Your task to perform on an android device: Show the shopping cart on target. Add lenovo thinkpad to the cart on target, then select checkout. Image 0: 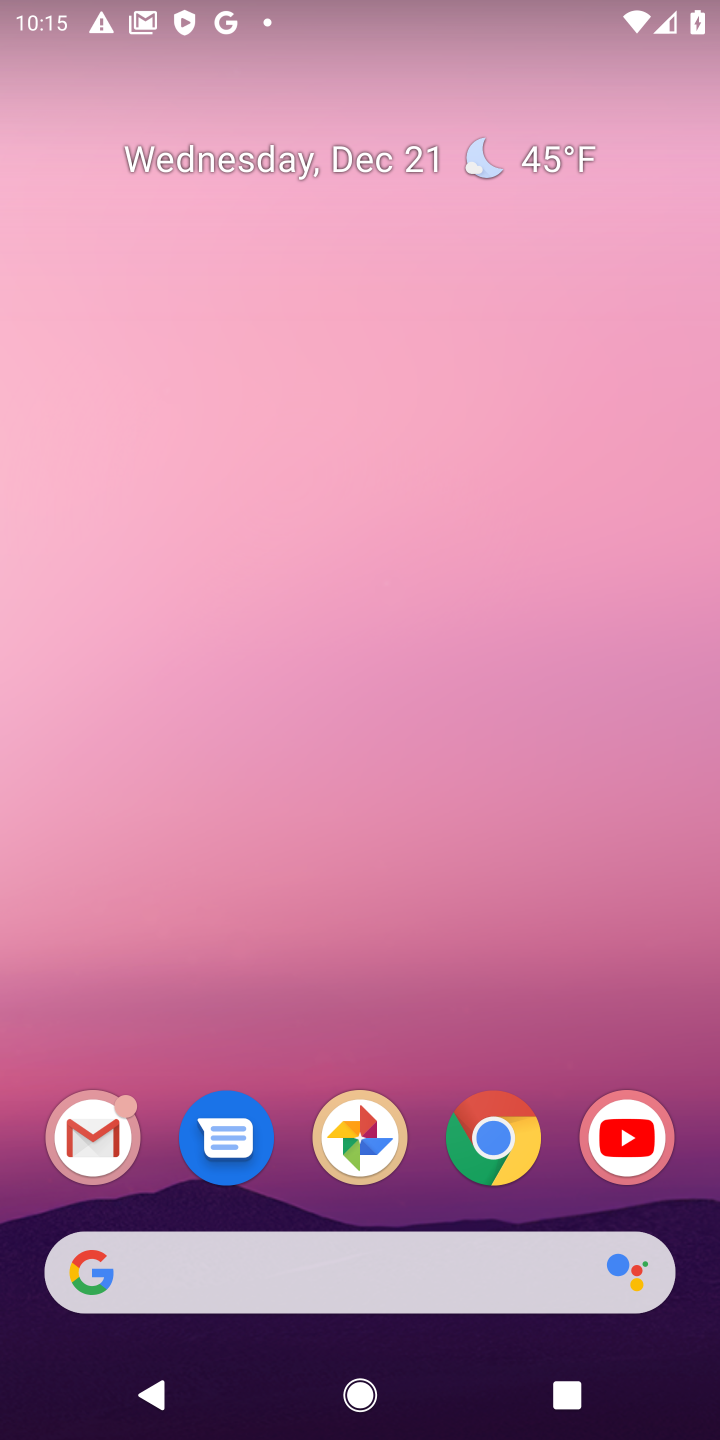
Step 0: click (500, 1139)
Your task to perform on an android device: Show the shopping cart on target. Add lenovo thinkpad to the cart on target, then select checkout. Image 1: 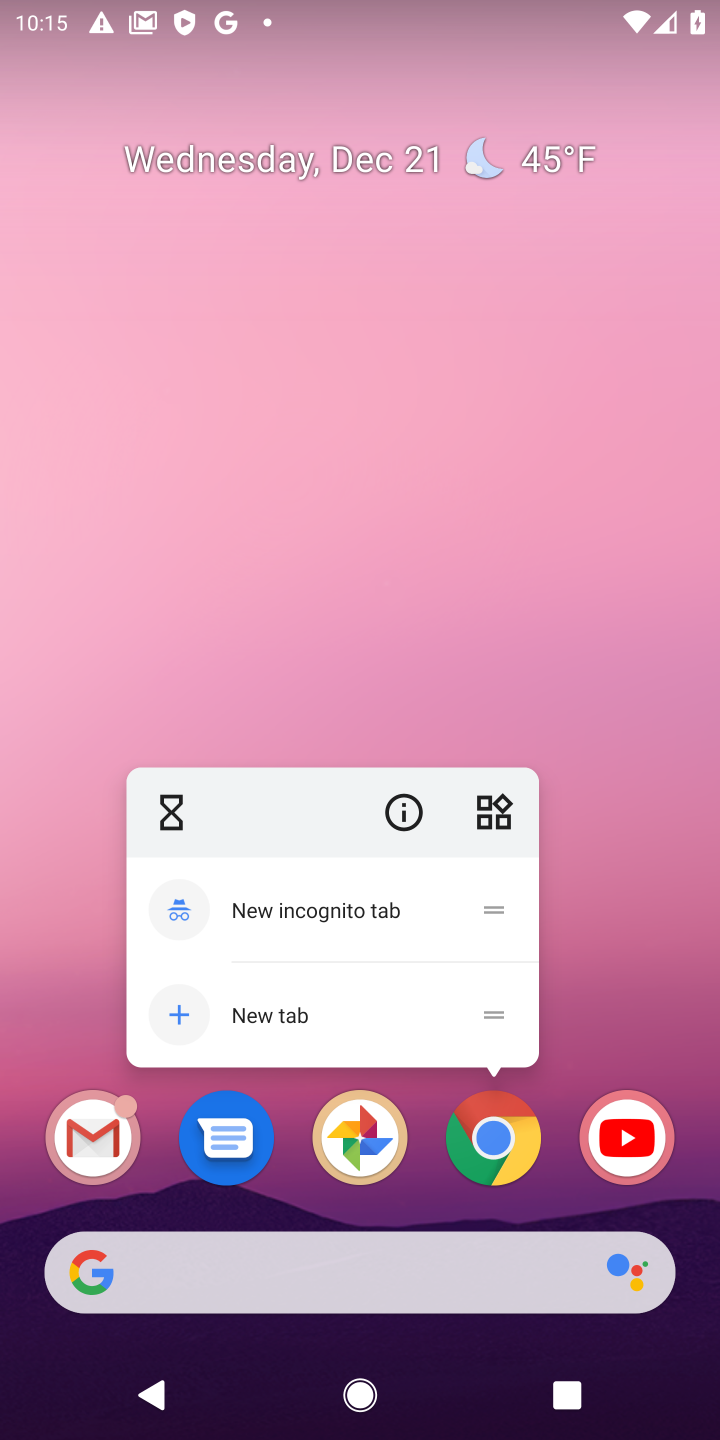
Step 1: click (500, 1141)
Your task to perform on an android device: Show the shopping cart on target. Add lenovo thinkpad to the cart on target, then select checkout. Image 2: 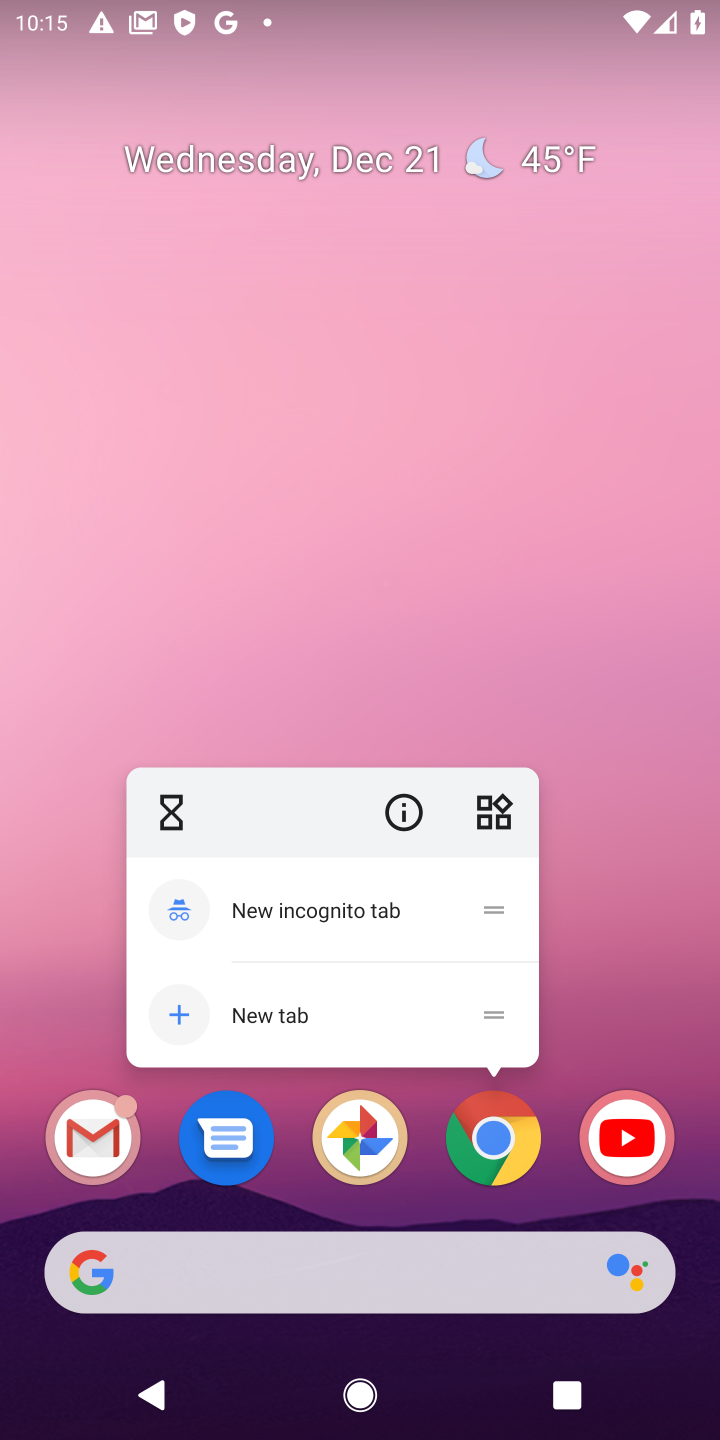
Step 2: click (490, 1143)
Your task to perform on an android device: Show the shopping cart on target. Add lenovo thinkpad to the cart on target, then select checkout. Image 3: 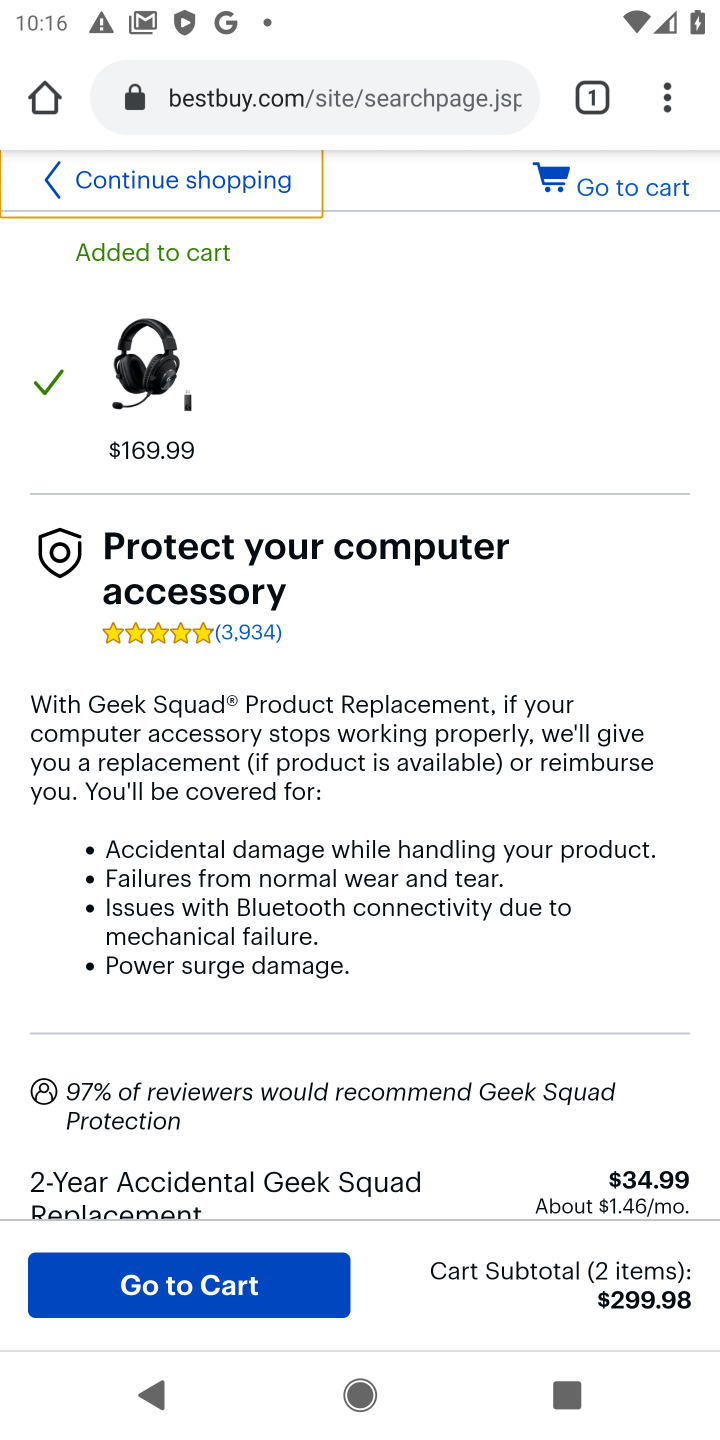
Step 3: click (228, 104)
Your task to perform on an android device: Show the shopping cart on target. Add lenovo thinkpad to the cart on target, then select checkout. Image 4: 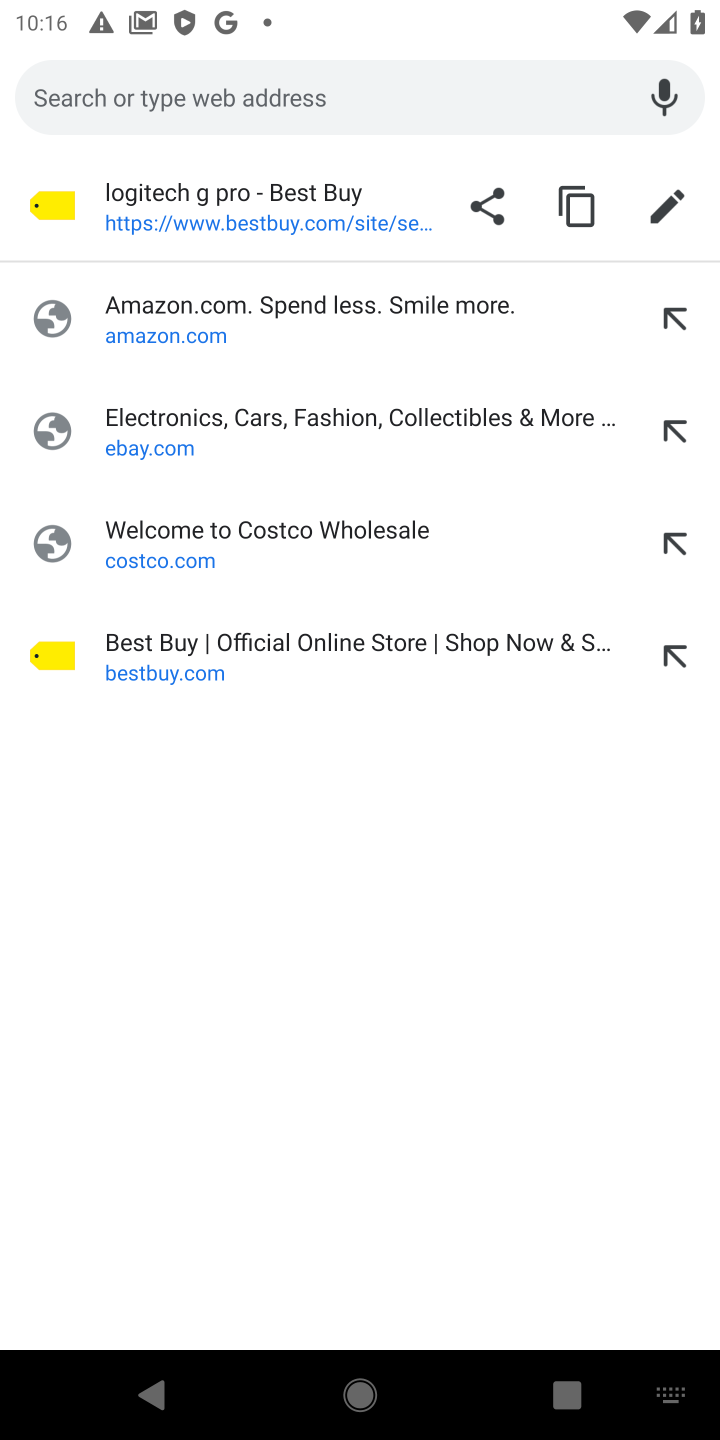
Step 4: type "target.com"
Your task to perform on an android device: Show the shopping cart on target. Add lenovo thinkpad to the cart on target, then select checkout. Image 5: 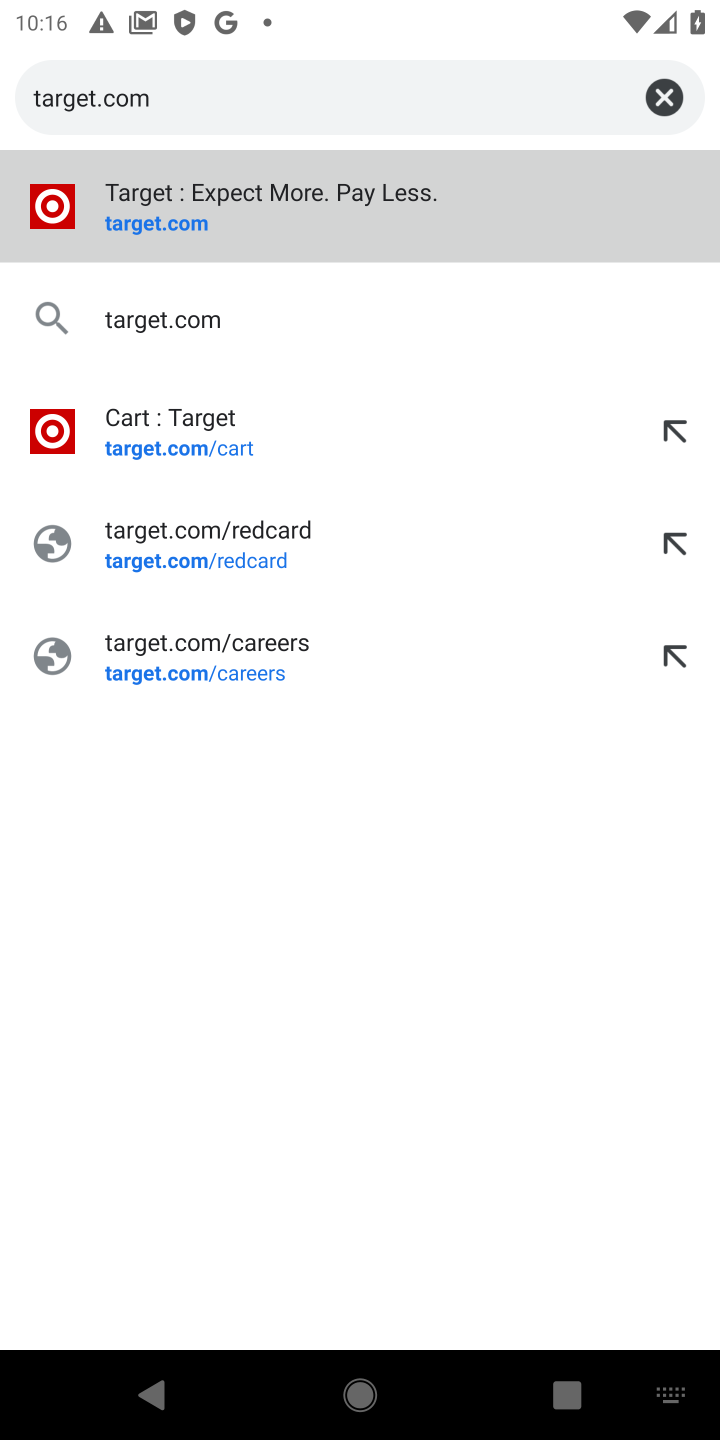
Step 5: click (149, 213)
Your task to perform on an android device: Show the shopping cart on target. Add lenovo thinkpad to the cart on target, then select checkout. Image 6: 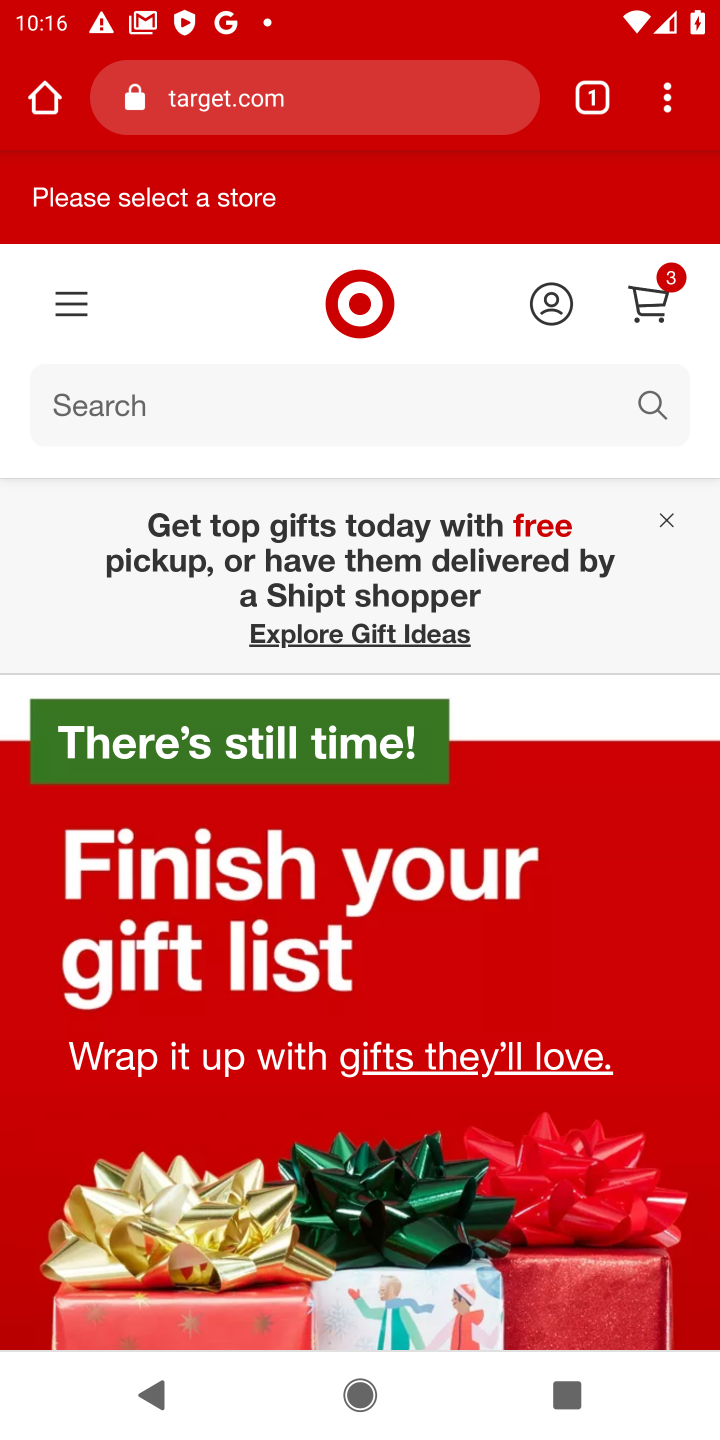
Step 6: click (648, 307)
Your task to perform on an android device: Show the shopping cart on target. Add lenovo thinkpad to the cart on target, then select checkout. Image 7: 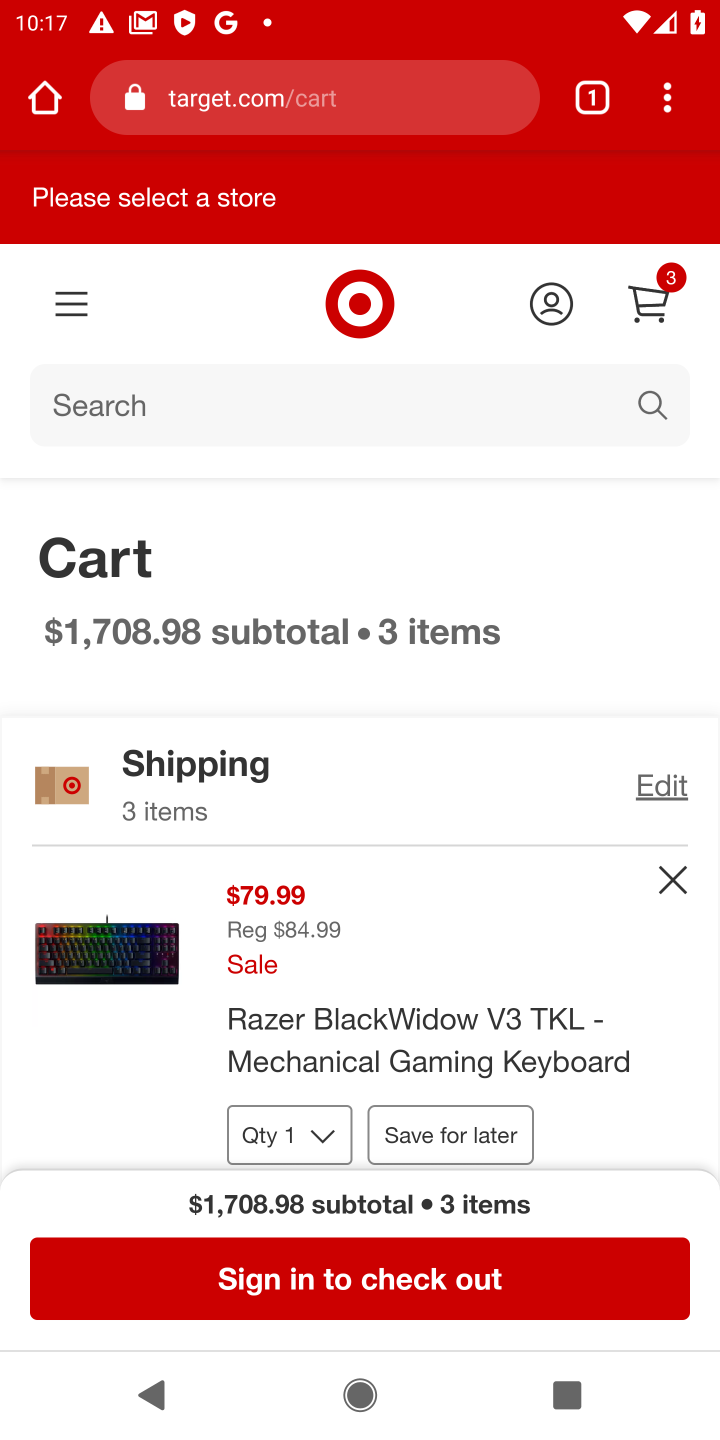
Step 7: click (88, 407)
Your task to perform on an android device: Show the shopping cart on target. Add lenovo thinkpad to the cart on target, then select checkout. Image 8: 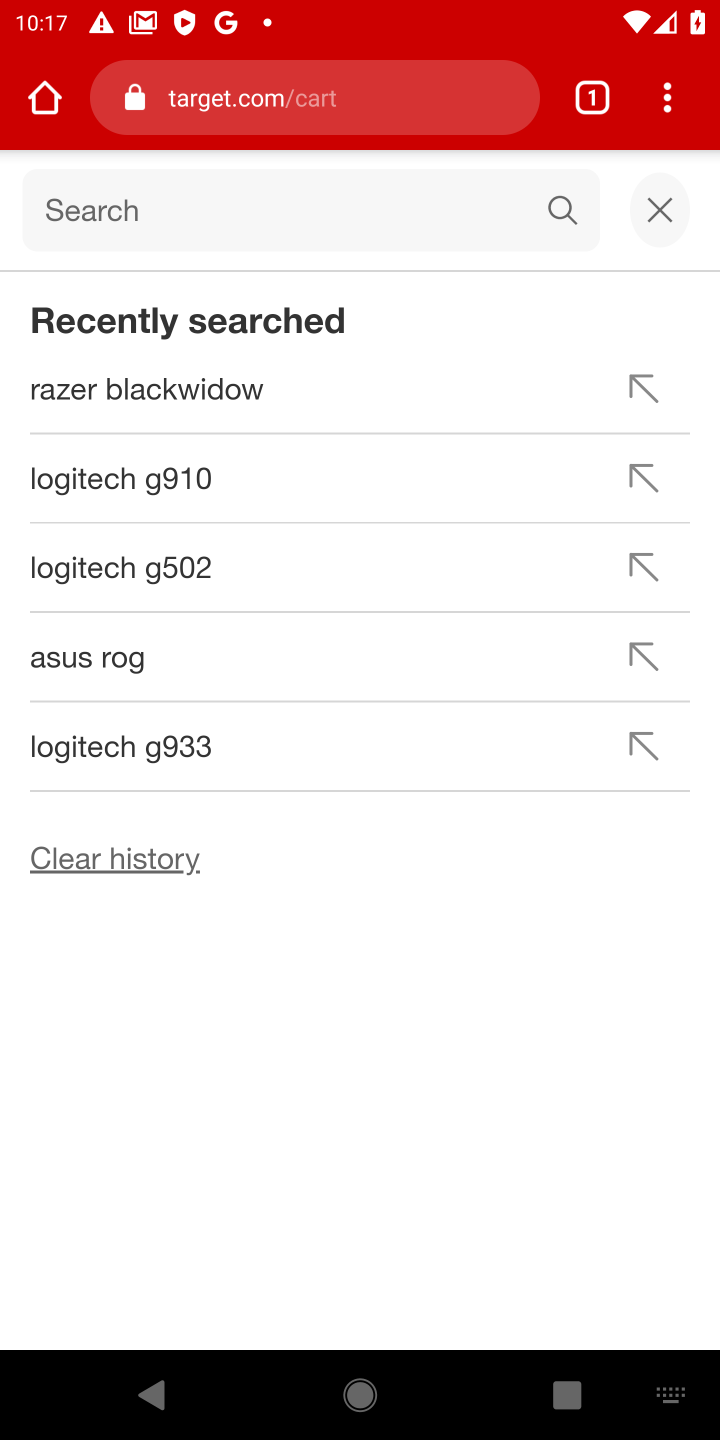
Step 8: type "lenovo thinkpad"
Your task to perform on an android device: Show the shopping cart on target. Add lenovo thinkpad to the cart on target, then select checkout. Image 9: 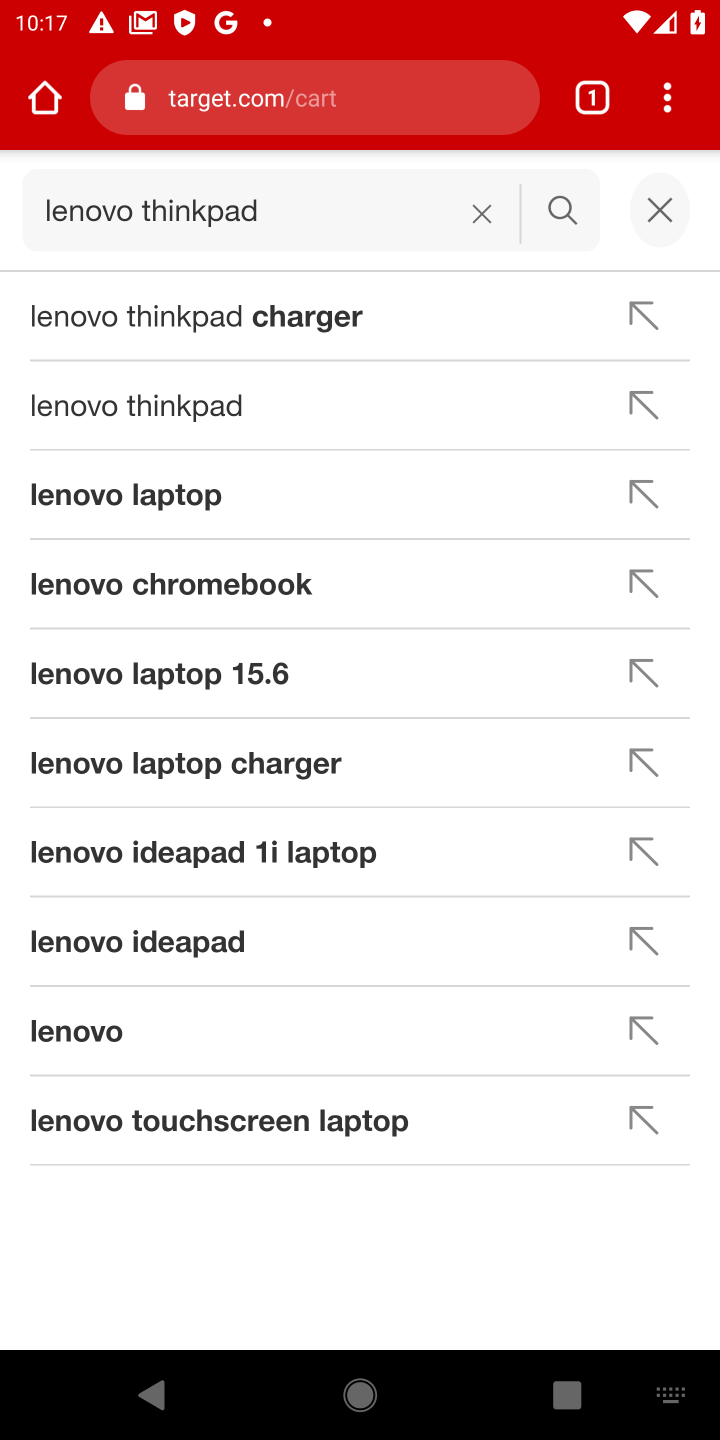
Step 9: click (97, 413)
Your task to perform on an android device: Show the shopping cart on target. Add lenovo thinkpad to the cart on target, then select checkout. Image 10: 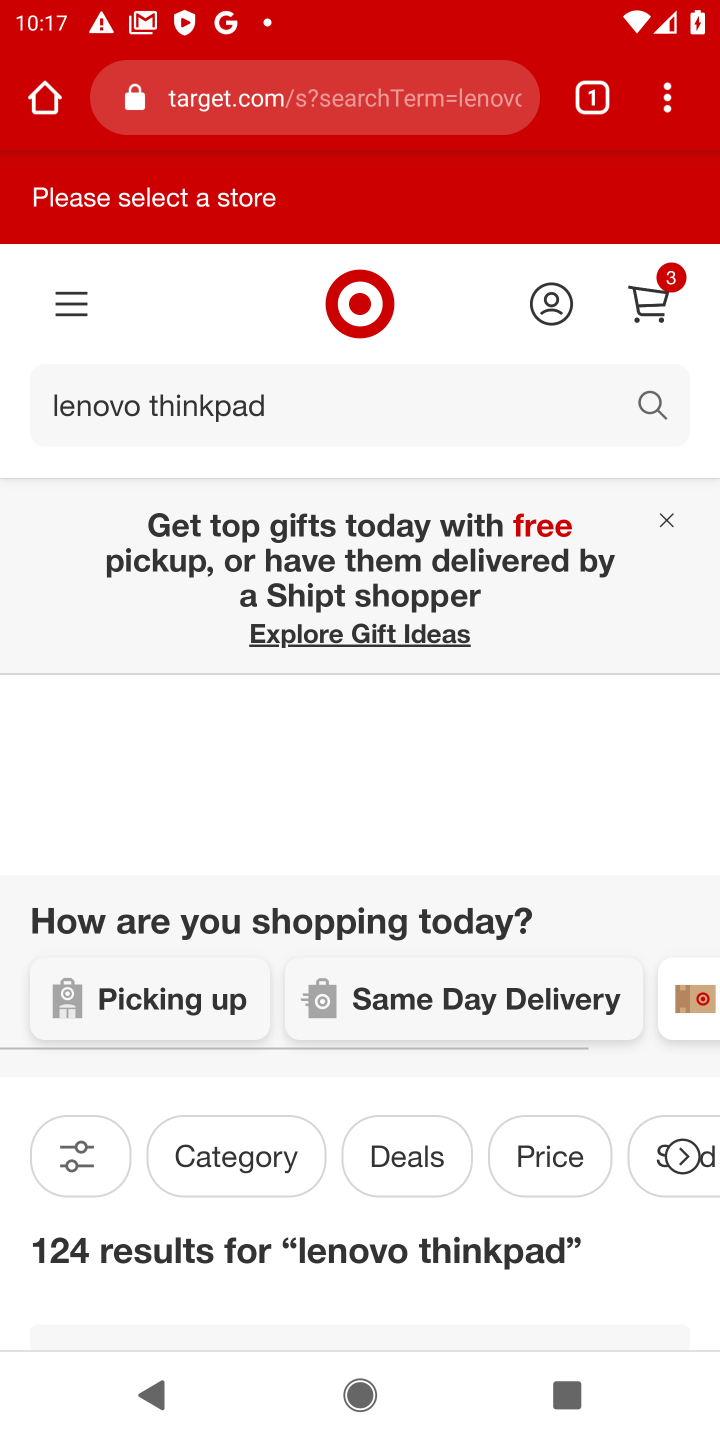
Step 10: drag from (287, 999) to (288, 426)
Your task to perform on an android device: Show the shopping cart on target. Add lenovo thinkpad to the cart on target, then select checkout. Image 11: 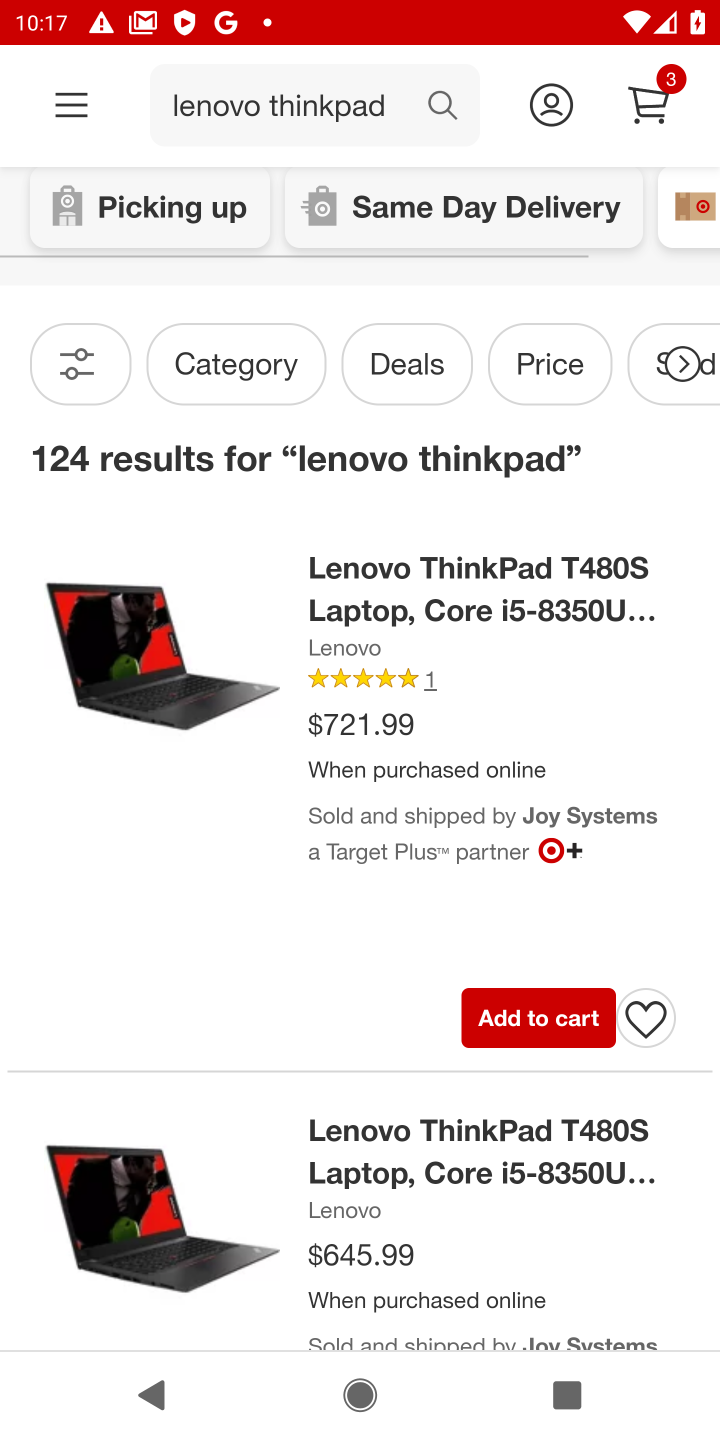
Step 11: click (540, 1029)
Your task to perform on an android device: Show the shopping cart on target. Add lenovo thinkpad to the cart on target, then select checkout. Image 12: 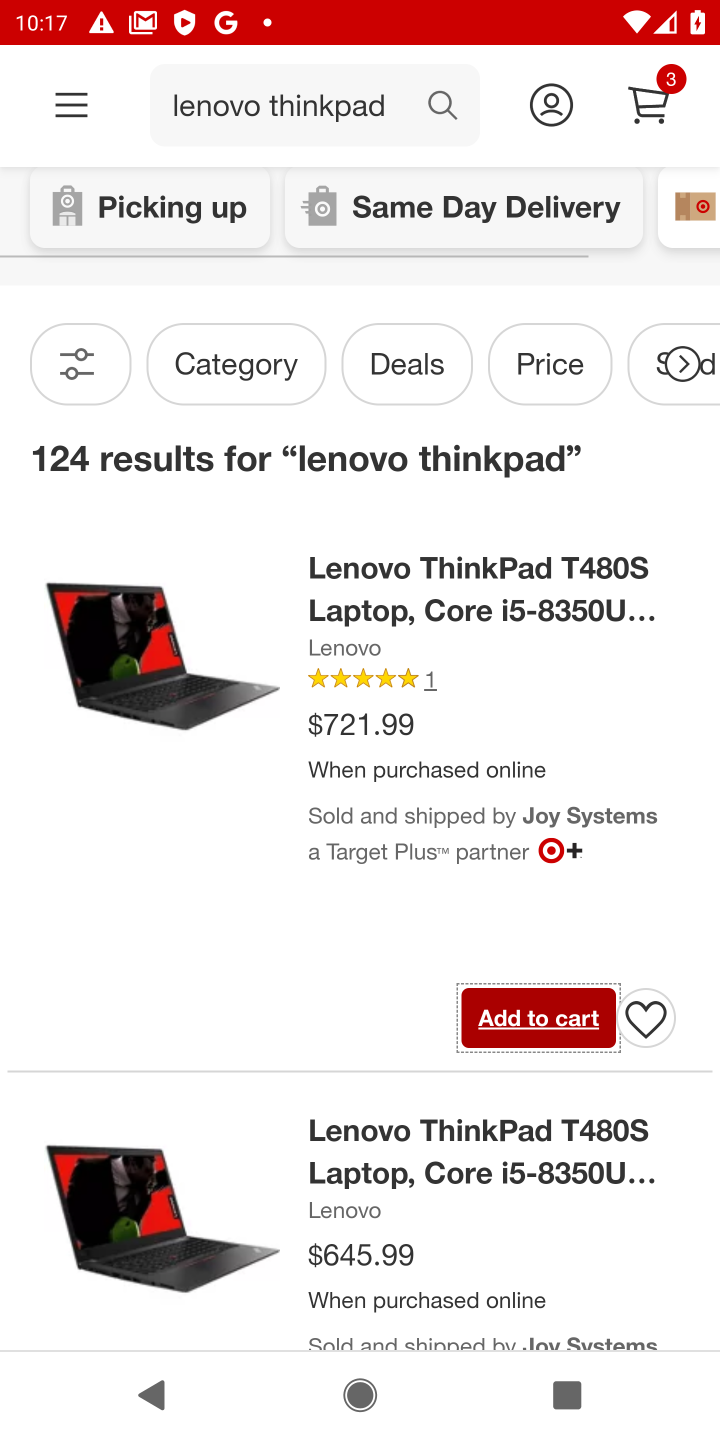
Step 12: click (651, 109)
Your task to perform on an android device: Show the shopping cart on target. Add lenovo thinkpad to the cart on target, then select checkout. Image 13: 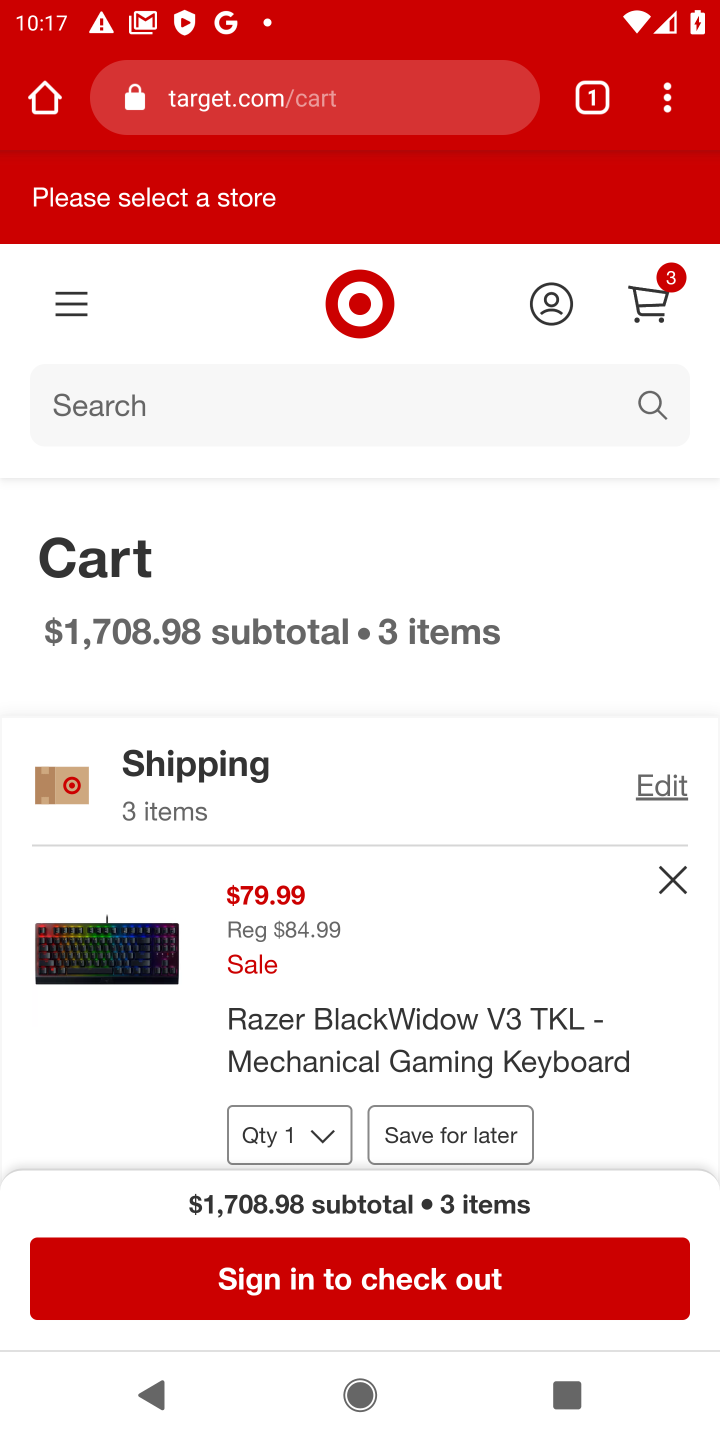
Step 13: click (350, 1282)
Your task to perform on an android device: Show the shopping cart on target. Add lenovo thinkpad to the cart on target, then select checkout. Image 14: 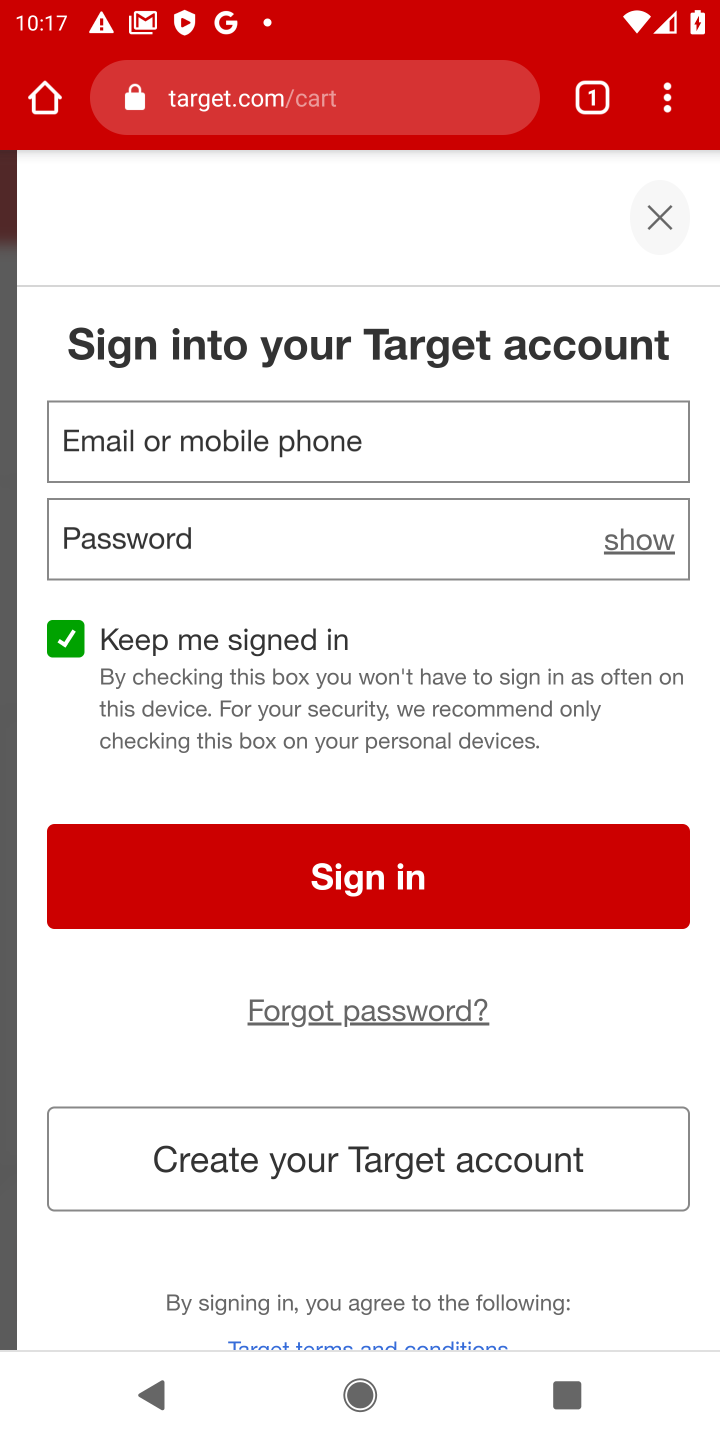
Step 14: task complete